Your task to perform on an android device: Check the weather Image 0: 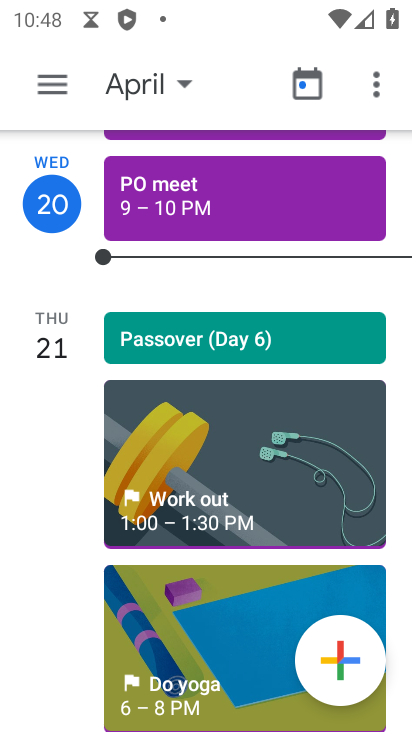
Step 0: press home button
Your task to perform on an android device: Check the weather Image 1: 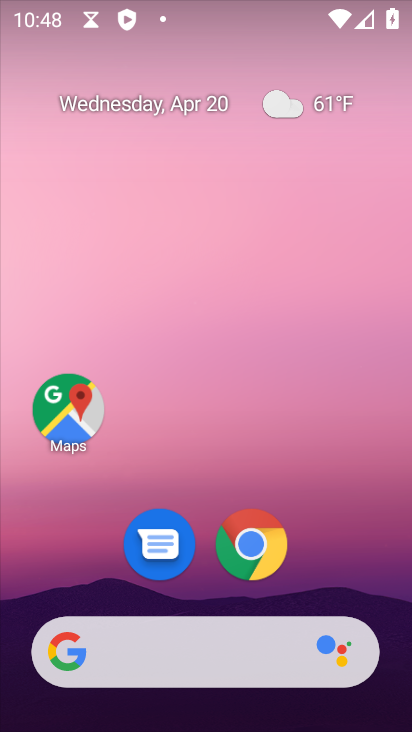
Step 1: click (344, 100)
Your task to perform on an android device: Check the weather Image 2: 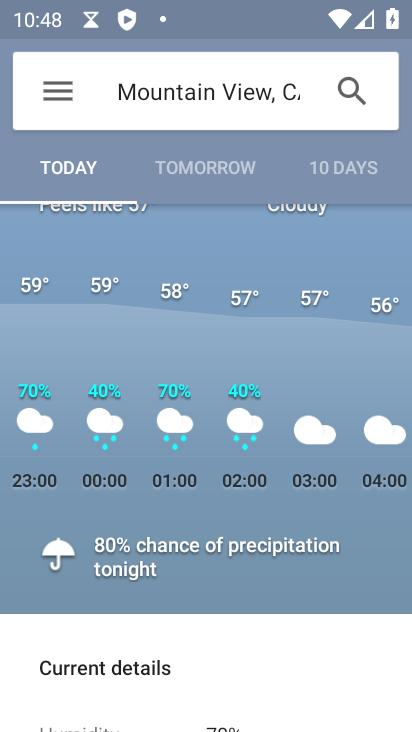
Step 2: task complete